Your task to perform on an android device: Add "razer naga" to the cart on costco Image 0: 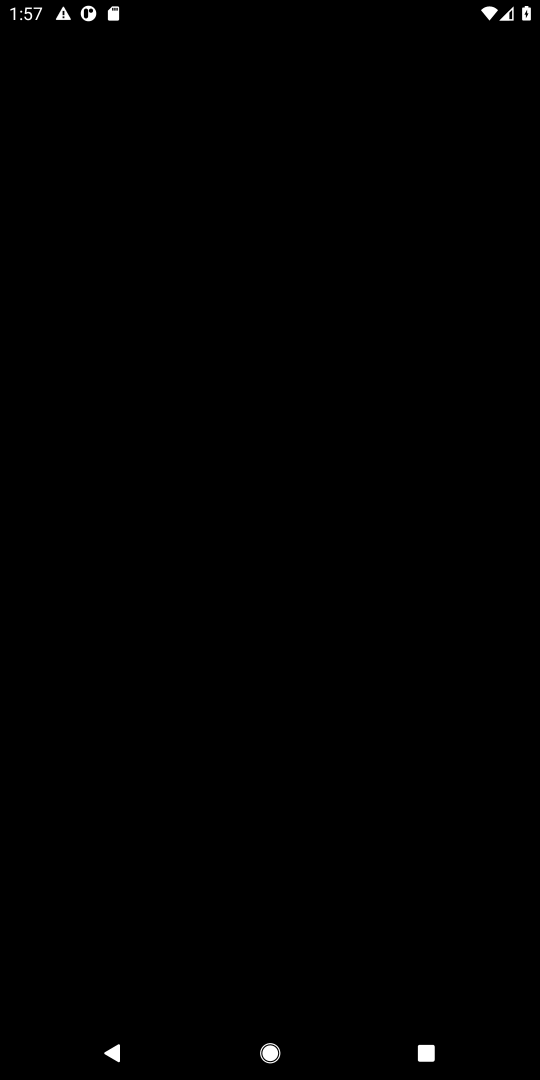
Step 0: press home button
Your task to perform on an android device: Add "razer naga" to the cart on costco Image 1: 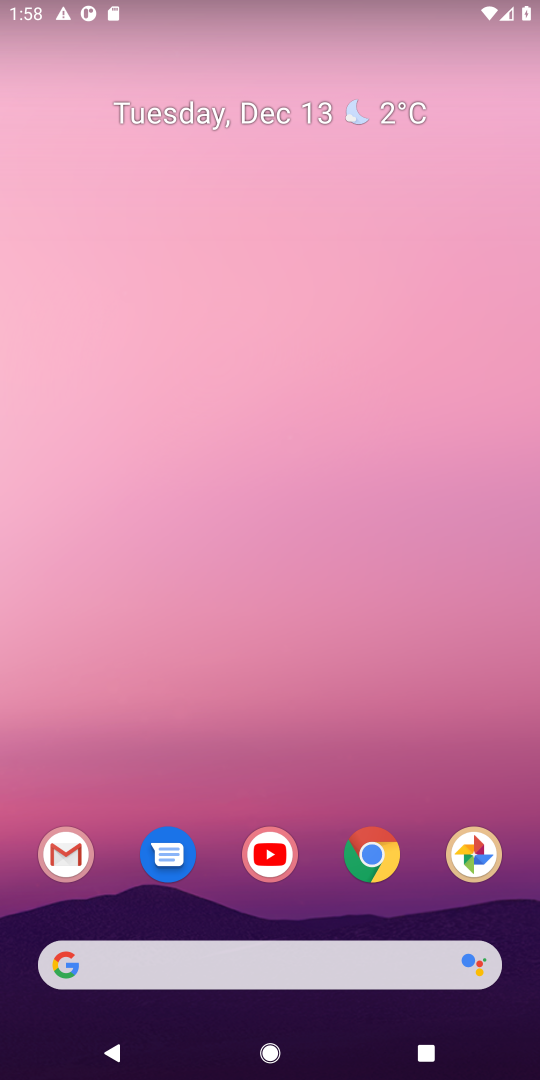
Step 1: click (305, 948)
Your task to perform on an android device: Add "razer naga" to the cart on costco Image 2: 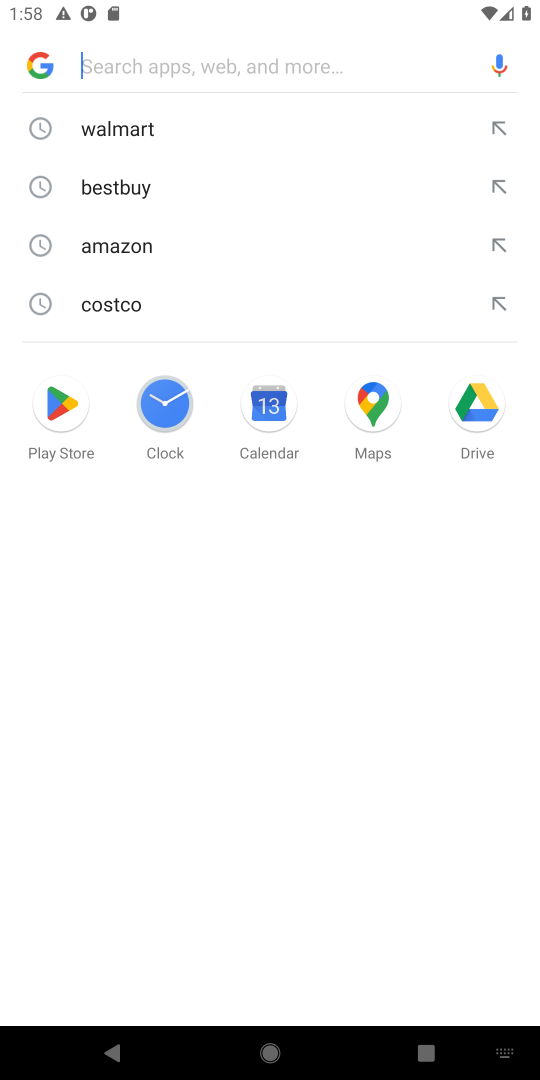
Step 2: type "costco"
Your task to perform on an android device: Add "razer naga" to the cart on costco Image 3: 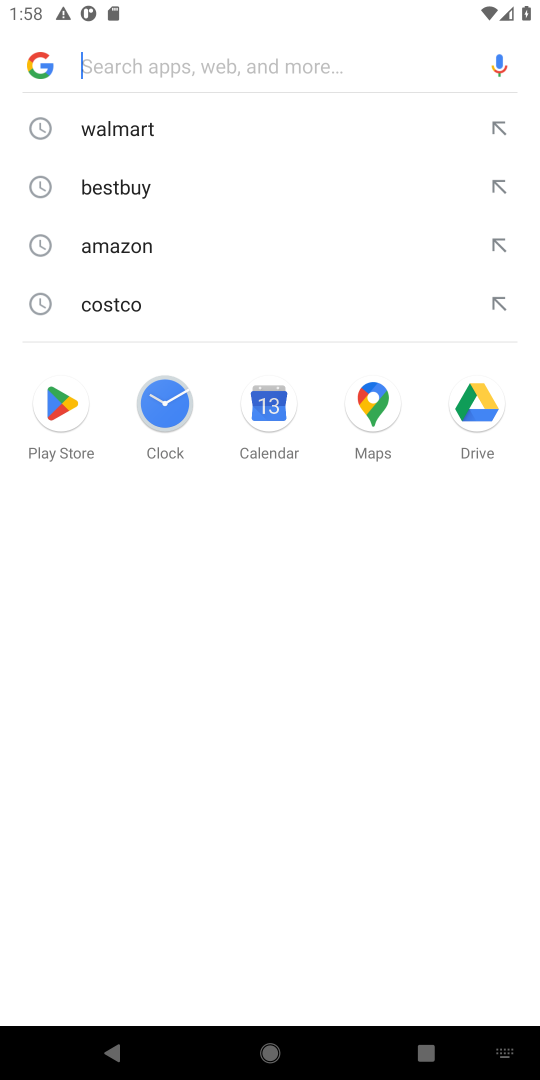
Step 3: click (120, 295)
Your task to perform on an android device: Add "razer naga" to the cart on costco Image 4: 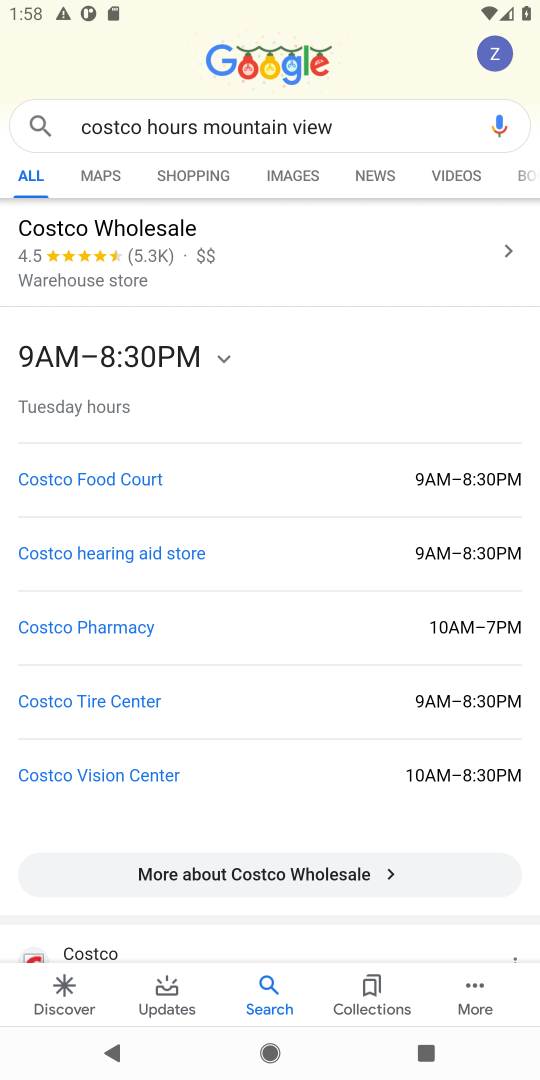
Step 4: click (97, 939)
Your task to perform on an android device: Add "razer naga" to the cart on costco Image 5: 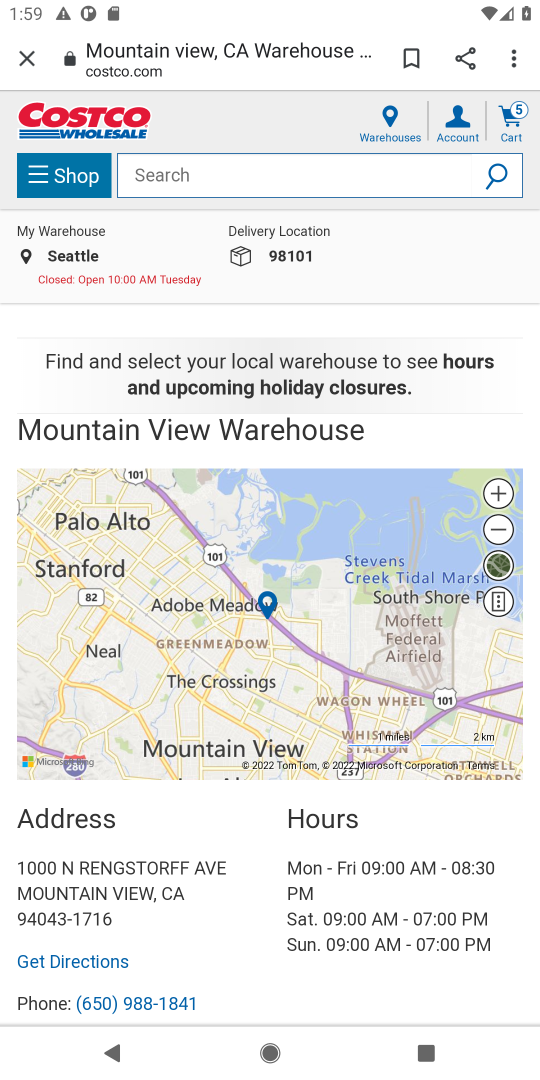
Step 5: task complete